Your task to perform on an android device: open app "PUBG MOBILE" (install if not already installed) Image 0: 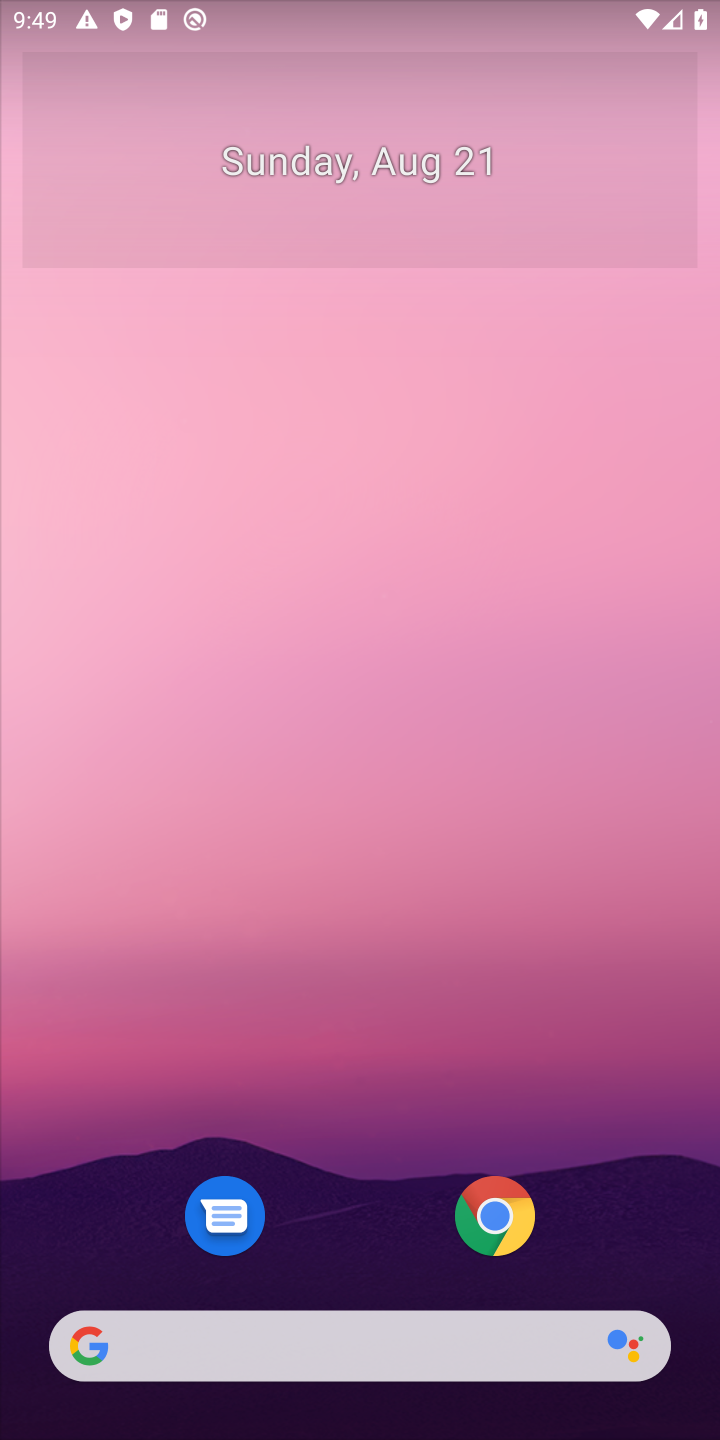
Step 0: drag from (125, 988) to (195, 181)
Your task to perform on an android device: open app "PUBG MOBILE" (install if not already installed) Image 1: 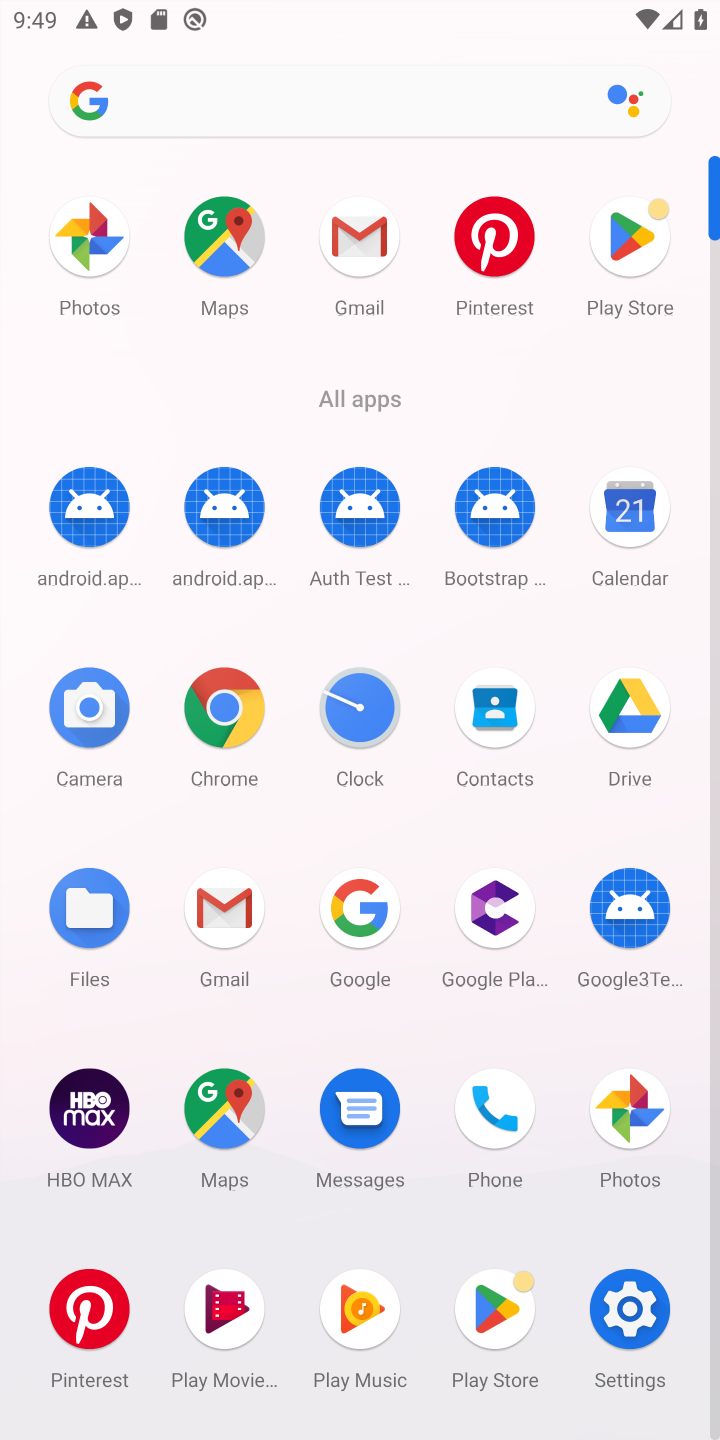
Step 1: click (625, 265)
Your task to perform on an android device: open app "PUBG MOBILE" (install if not already installed) Image 2: 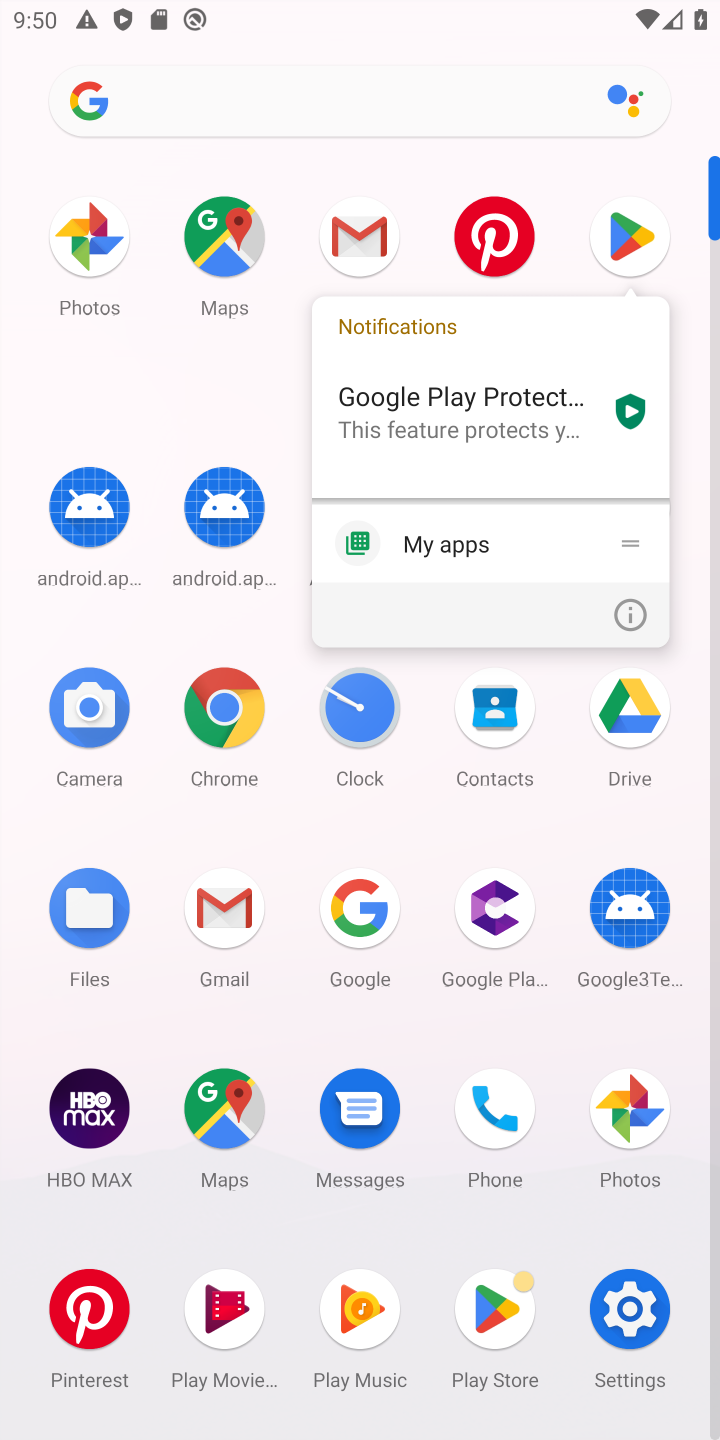
Step 2: click (605, 248)
Your task to perform on an android device: open app "PUBG MOBILE" (install if not already installed) Image 3: 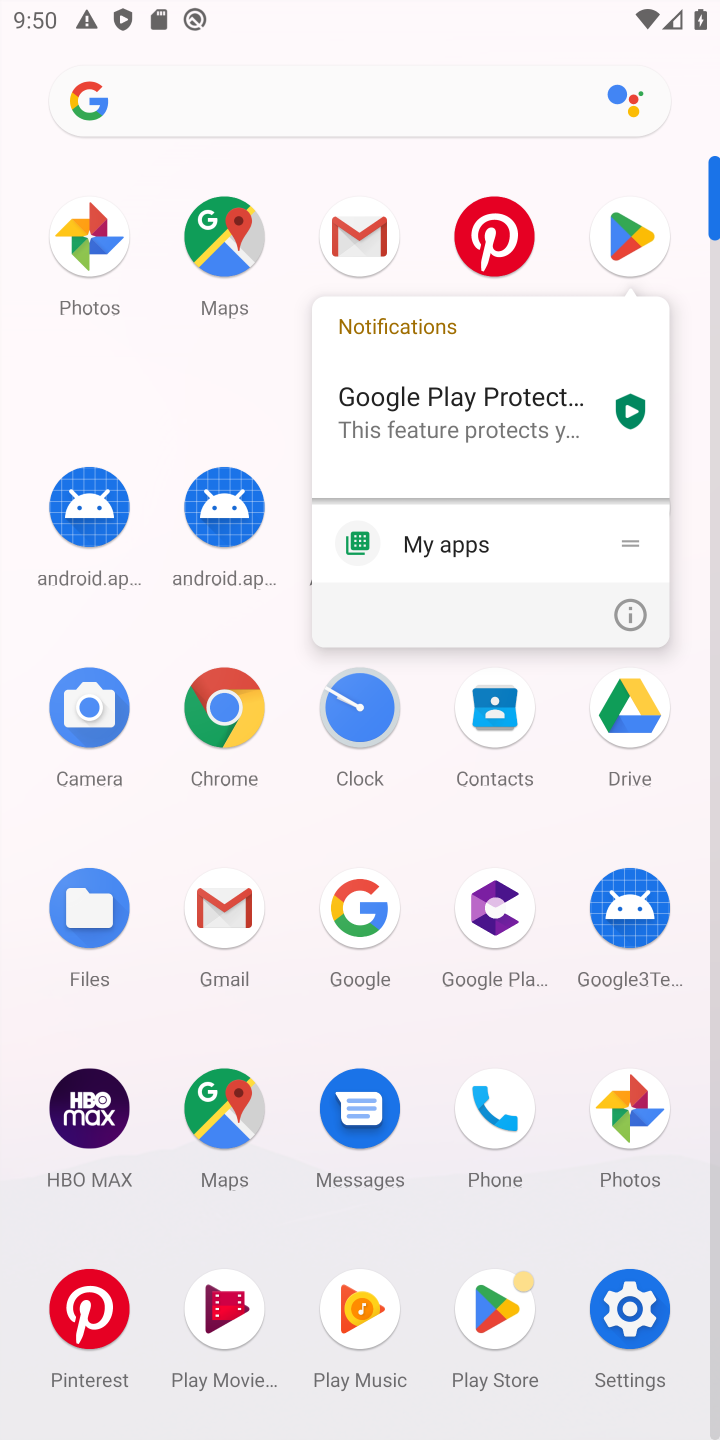
Step 3: click (648, 226)
Your task to perform on an android device: open app "PUBG MOBILE" (install if not already installed) Image 4: 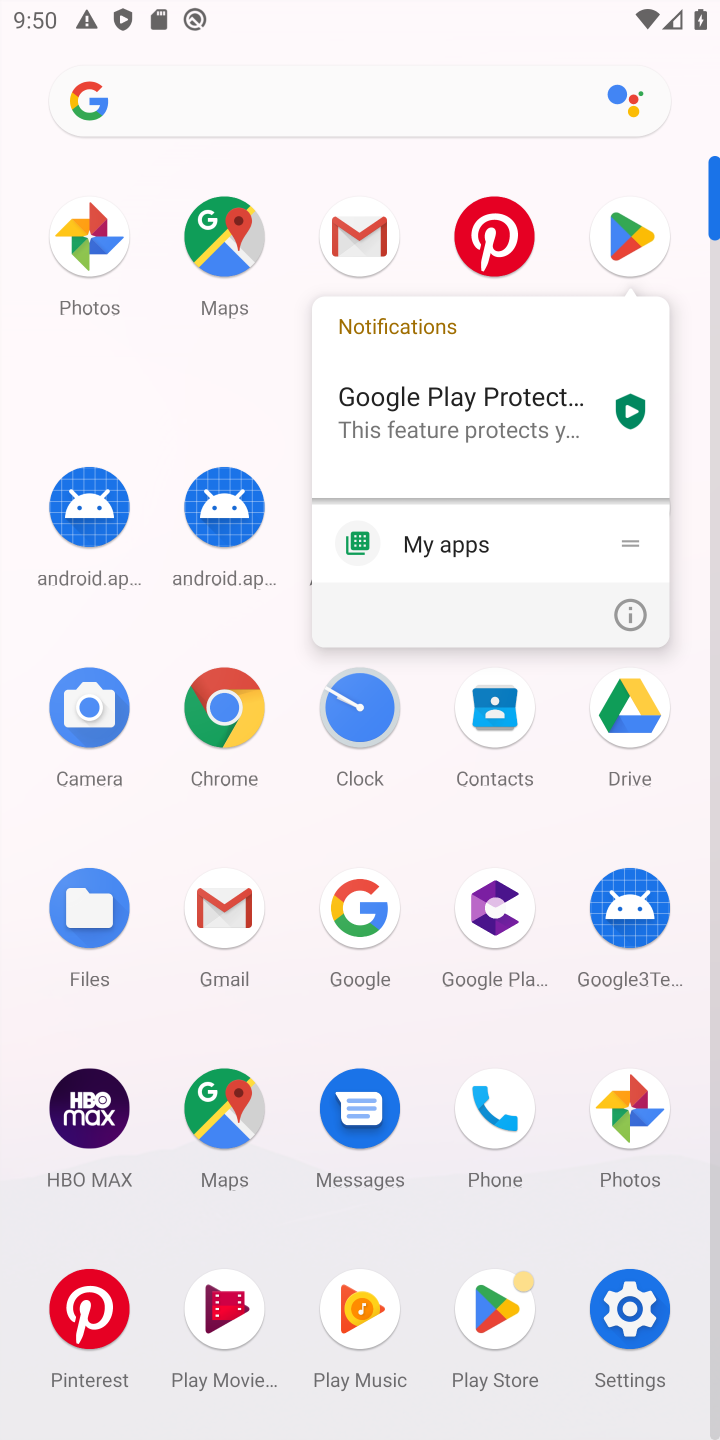
Step 4: click (642, 240)
Your task to perform on an android device: open app "PUBG MOBILE" (install if not already installed) Image 5: 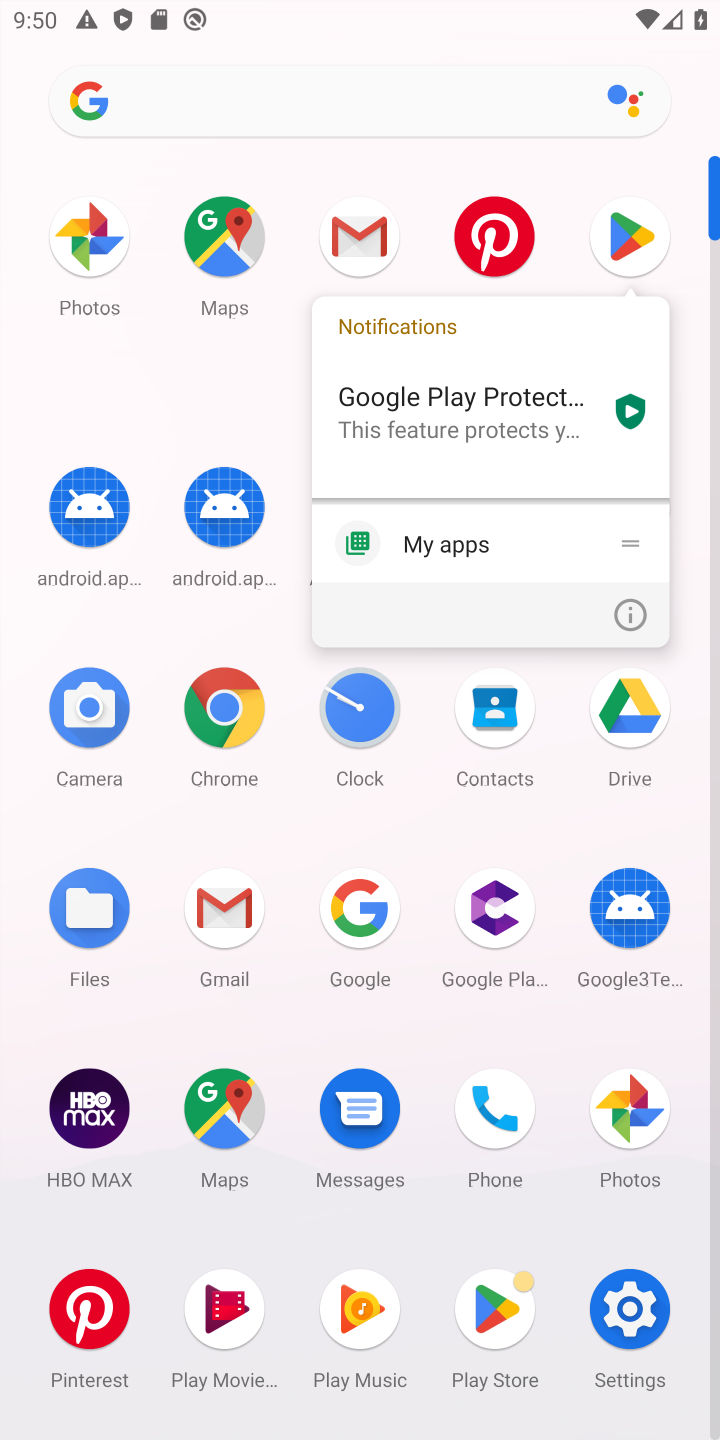
Step 5: click (636, 240)
Your task to perform on an android device: open app "PUBG MOBILE" (install if not already installed) Image 6: 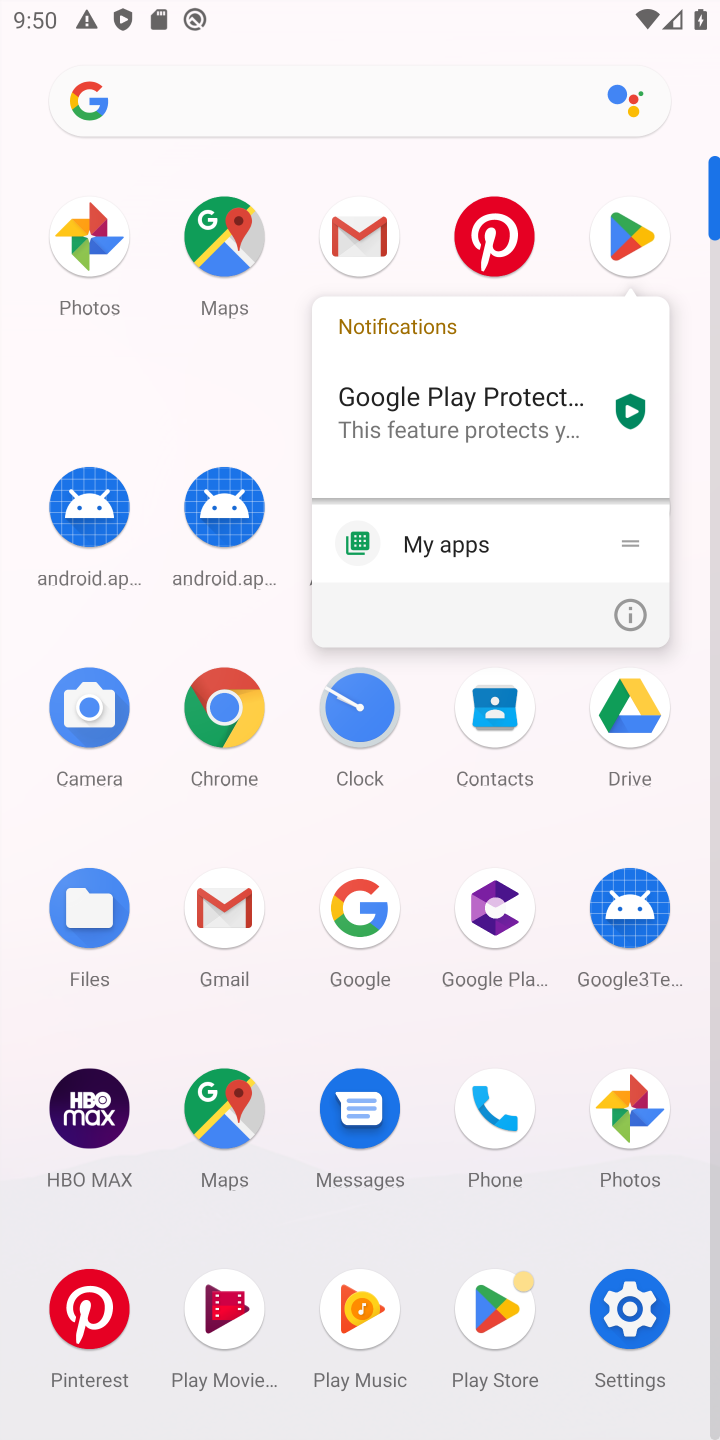
Step 6: click (636, 240)
Your task to perform on an android device: open app "PUBG MOBILE" (install if not already installed) Image 7: 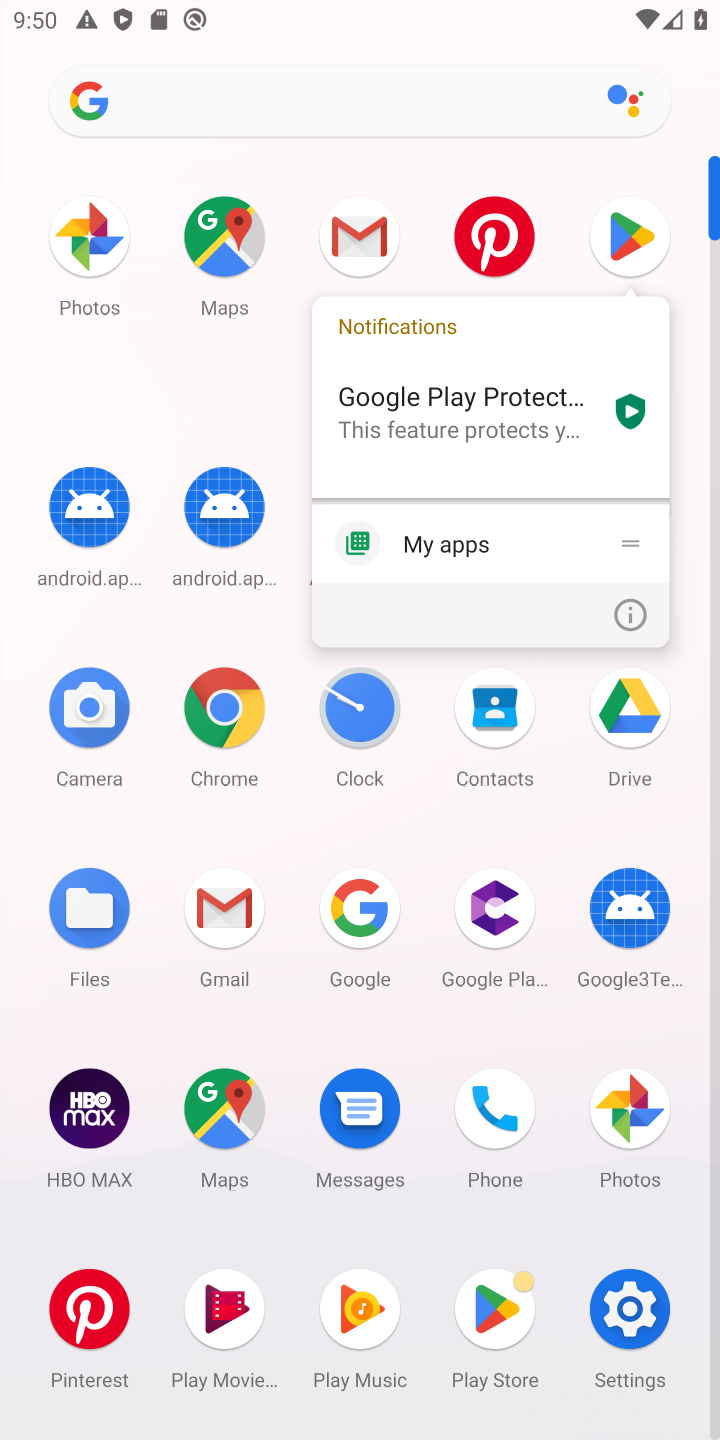
Step 7: click (636, 240)
Your task to perform on an android device: open app "PUBG MOBILE" (install if not already installed) Image 8: 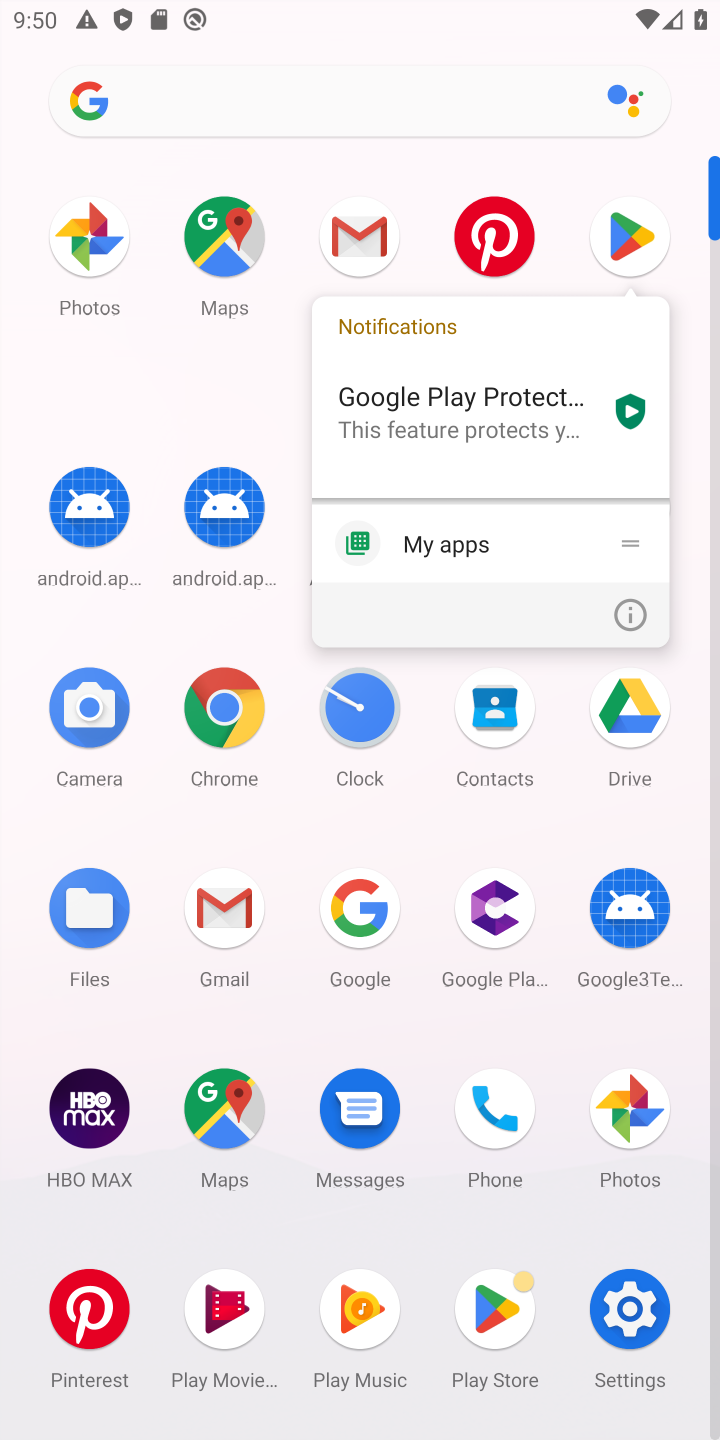
Step 8: click (636, 240)
Your task to perform on an android device: open app "PUBG MOBILE" (install if not already installed) Image 9: 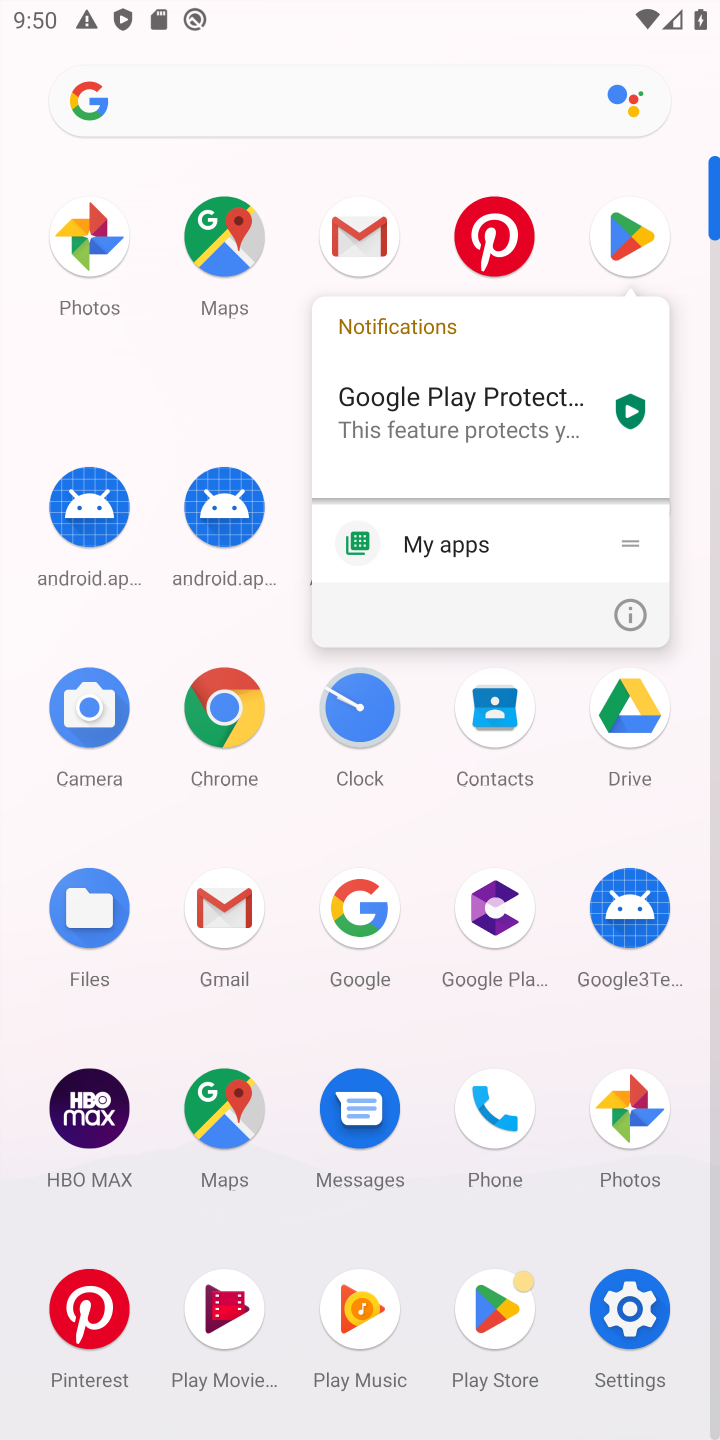
Step 9: click (624, 257)
Your task to perform on an android device: open app "PUBG MOBILE" (install if not already installed) Image 10: 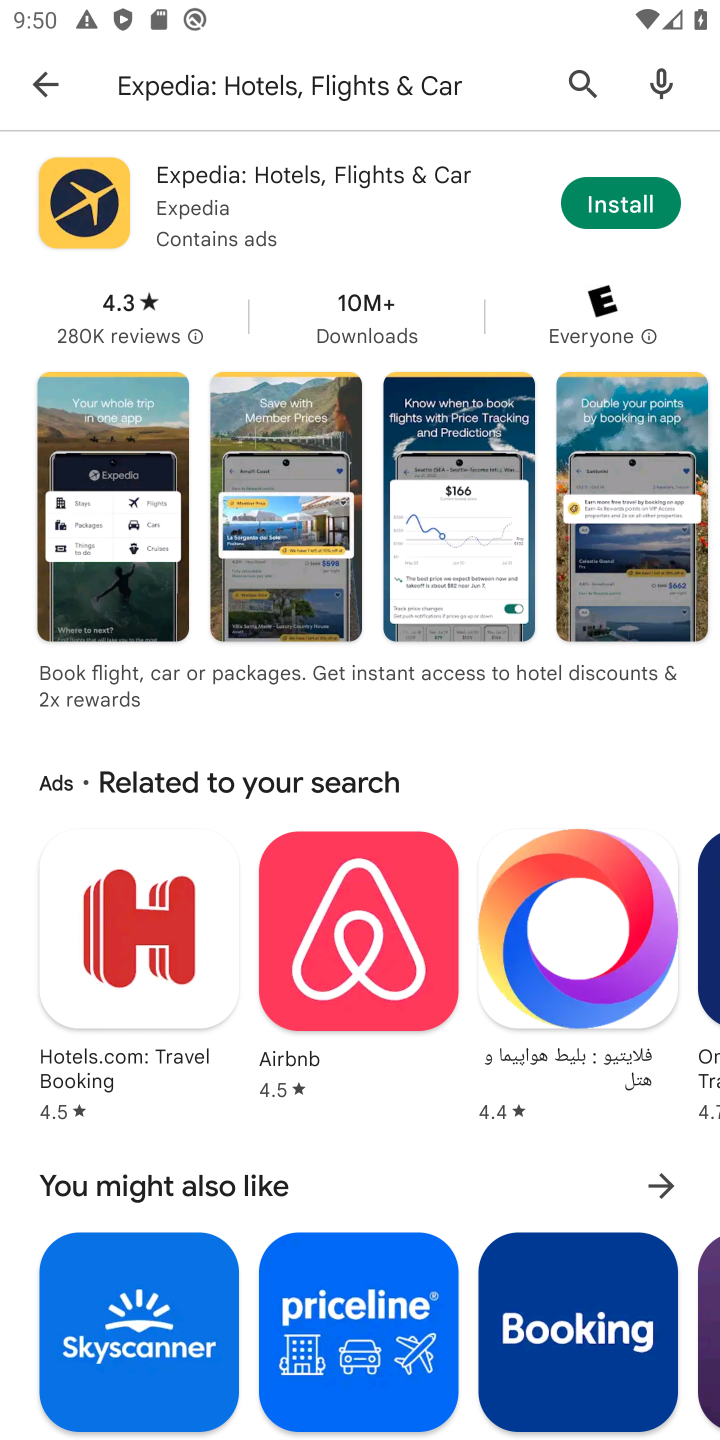
Step 10: click (597, 258)
Your task to perform on an android device: open app "PUBG MOBILE" (install if not already installed) Image 11: 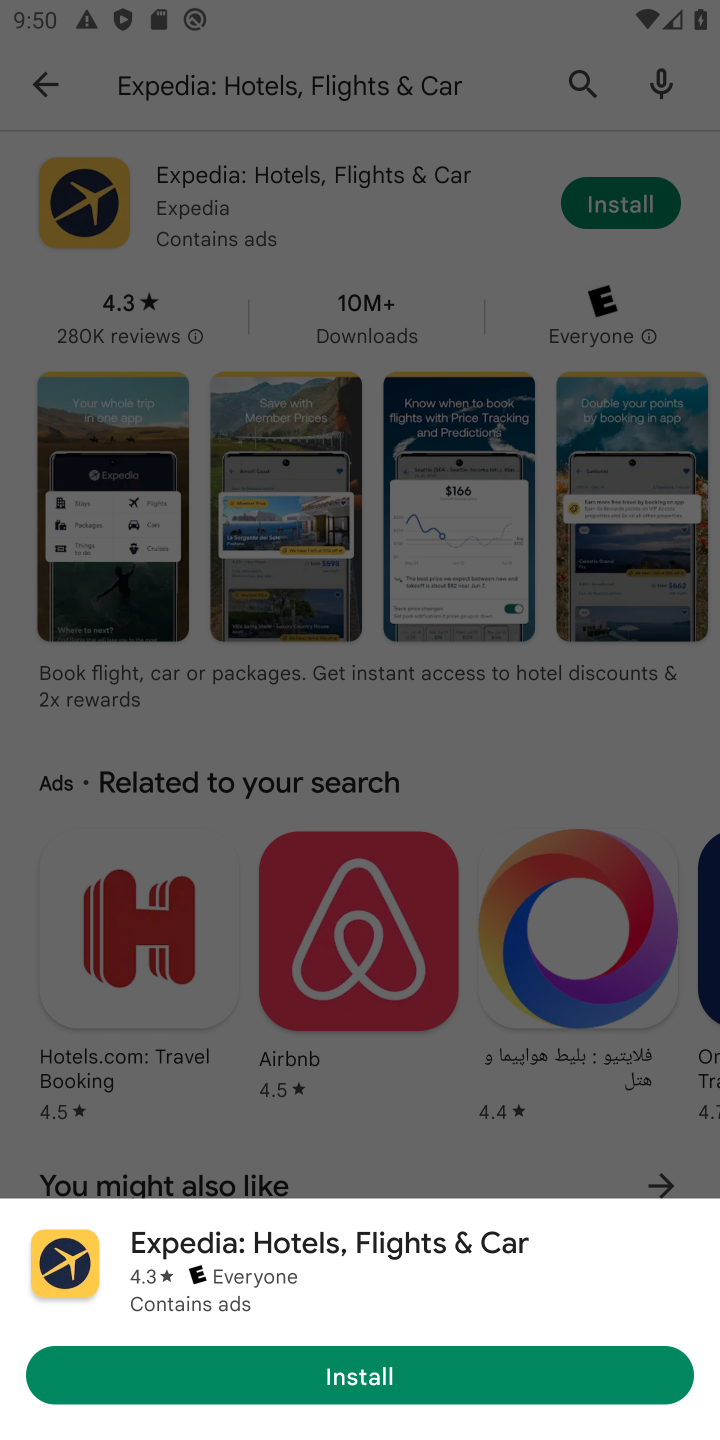
Step 11: press back button
Your task to perform on an android device: open app "PUBG MOBILE" (install if not already installed) Image 12: 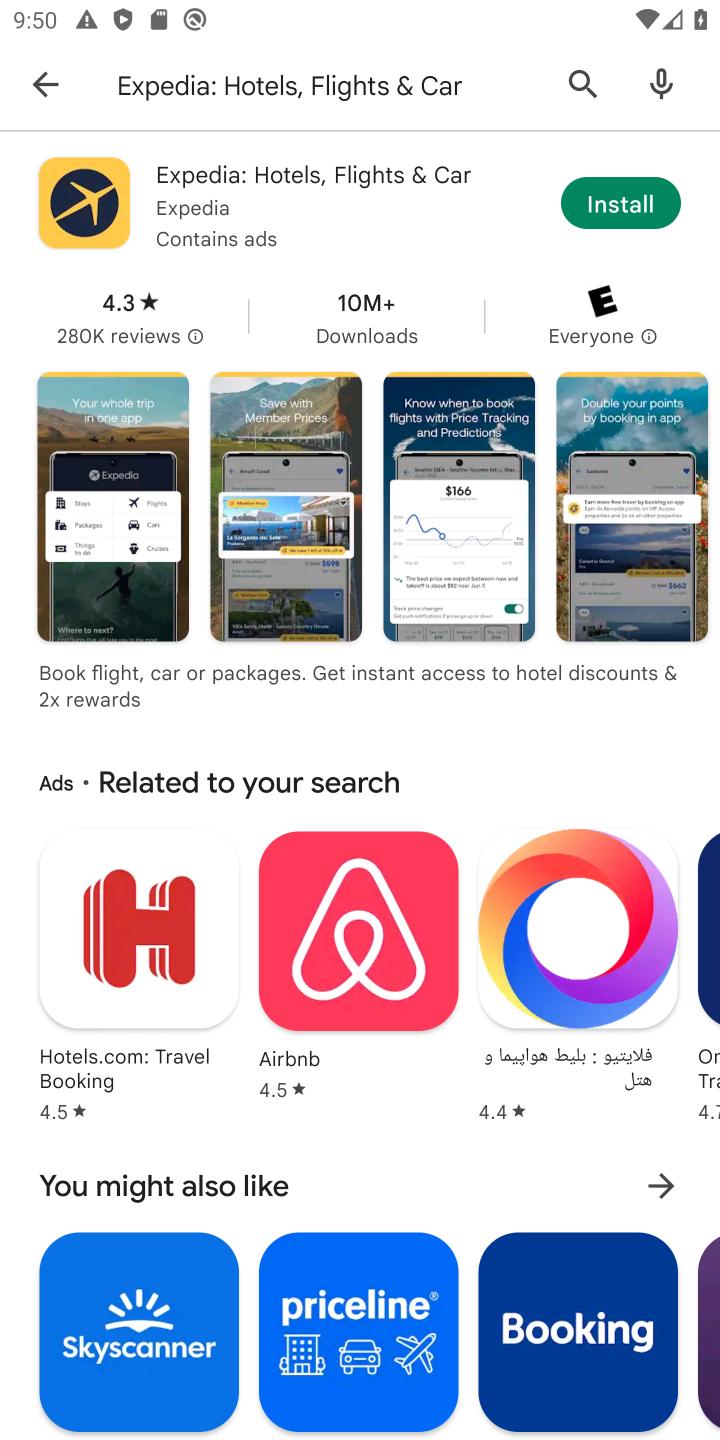
Step 12: press back button
Your task to perform on an android device: open app "PUBG MOBILE" (install if not already installed) Image 13: 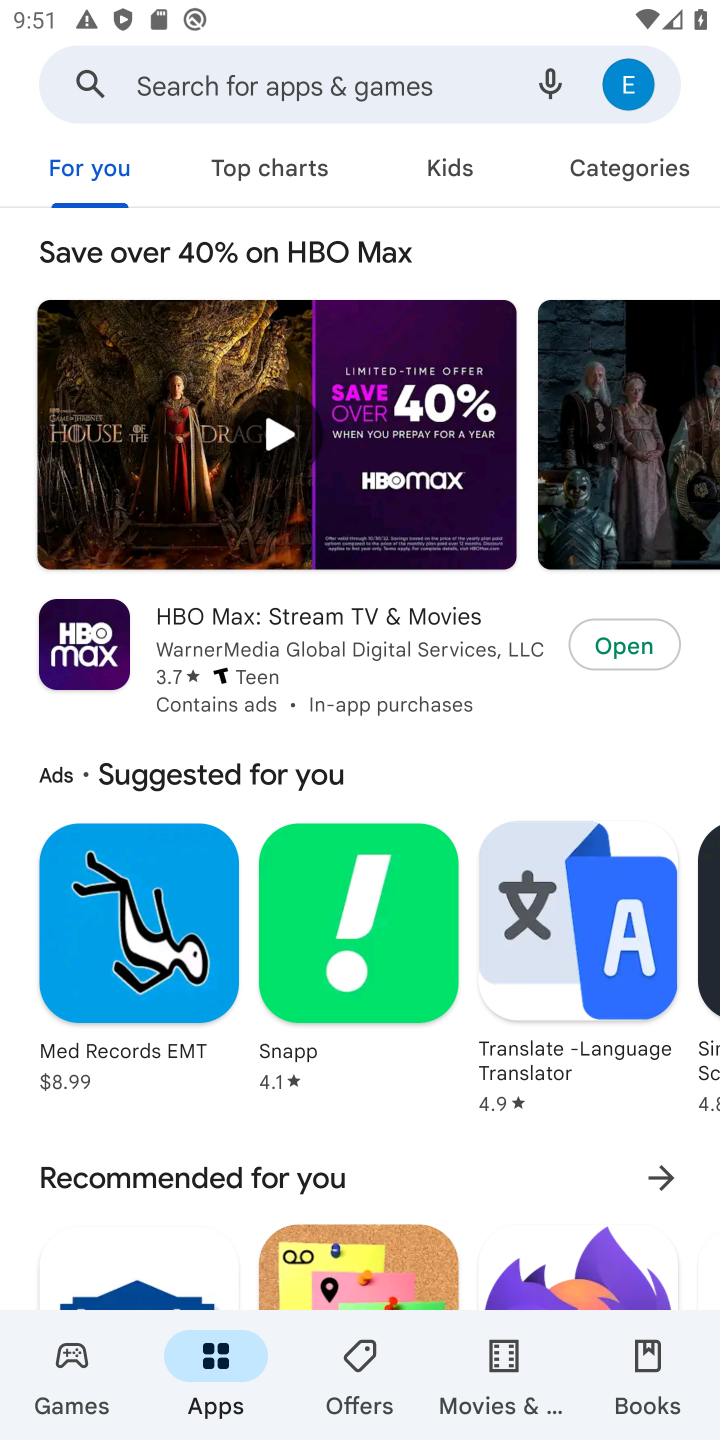
Step 13: click (288, 66)
Your task to perform on an android device: open app "PUBG MOBILE" (install if not already installed) Image 14: 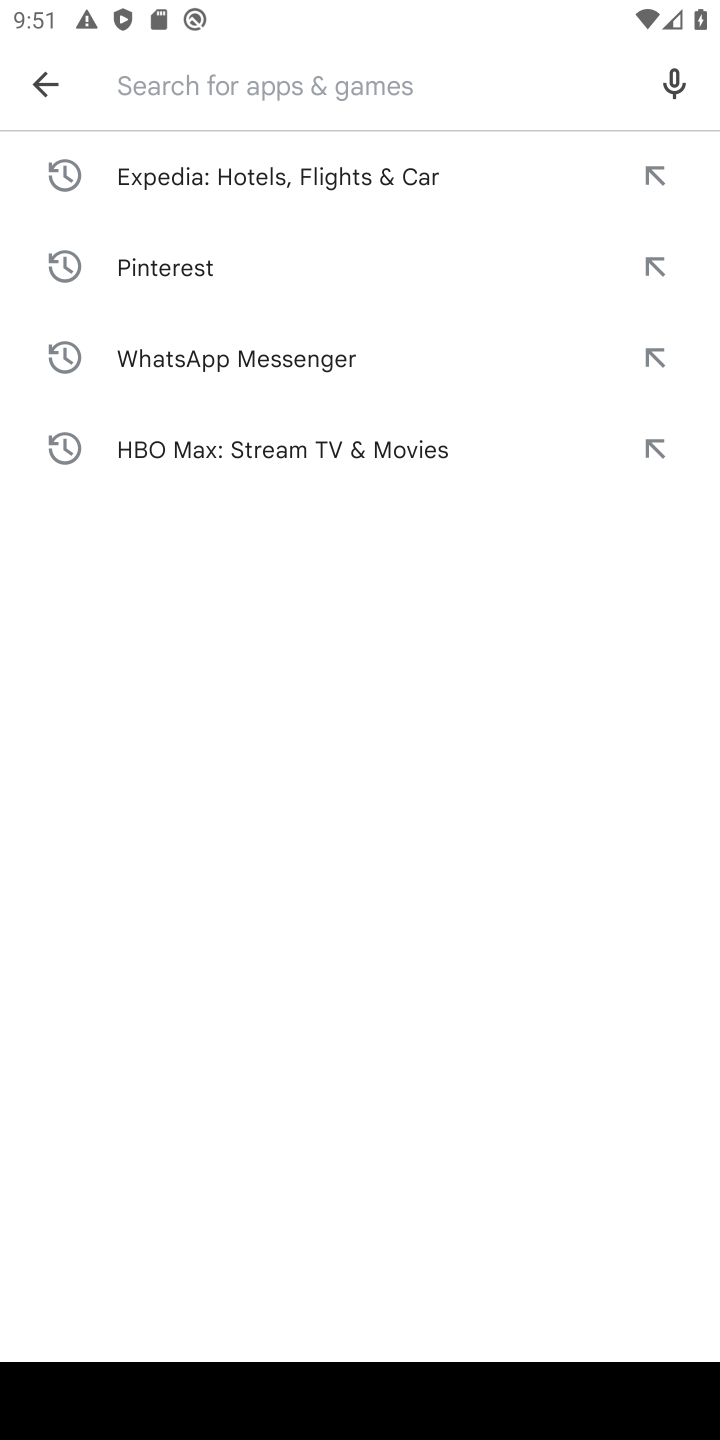
Step 14: type "PUBG MOBILE"
Your task to perform on an android device: open app "PUBG MOBILE" (install if not already installed) Image 15: 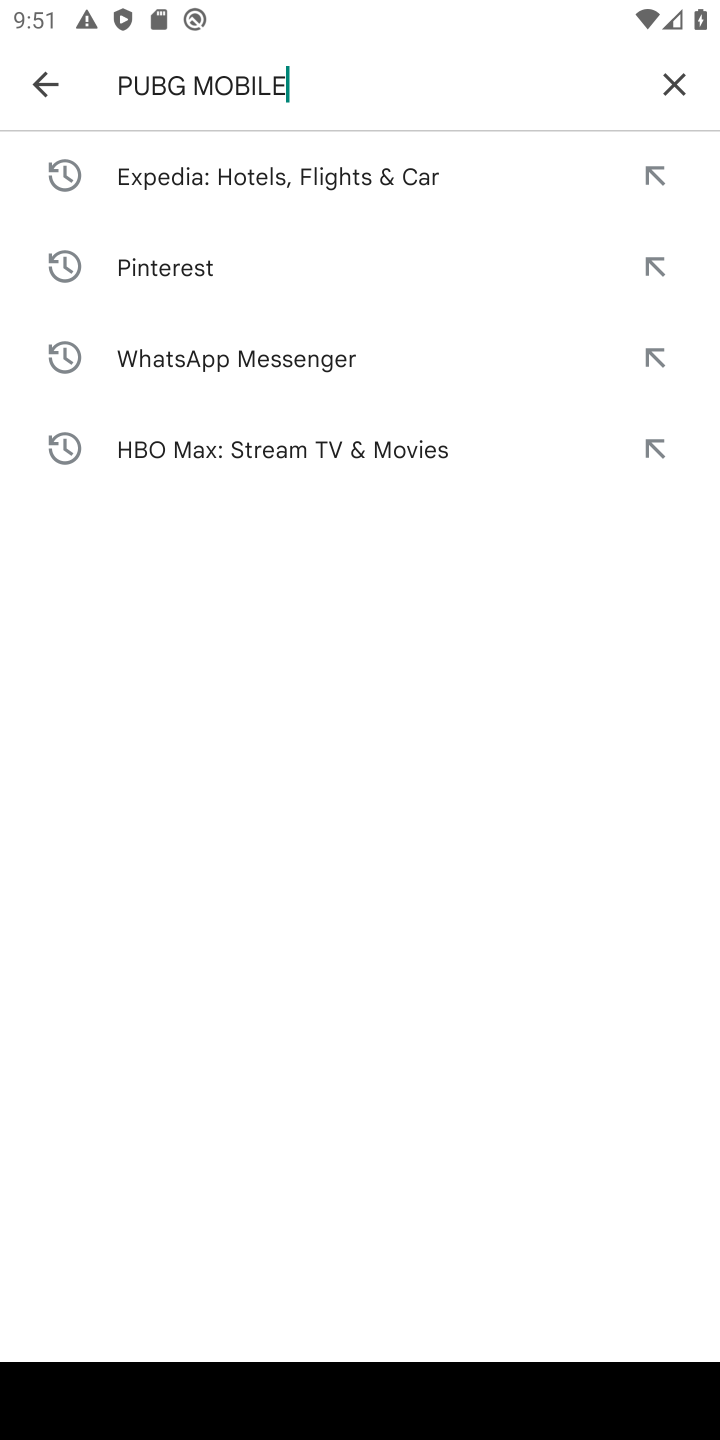
Step 15: press enter
Your task to perform on an android device: open app "PUBG MOBILE" (install if not already installed) Image 16: 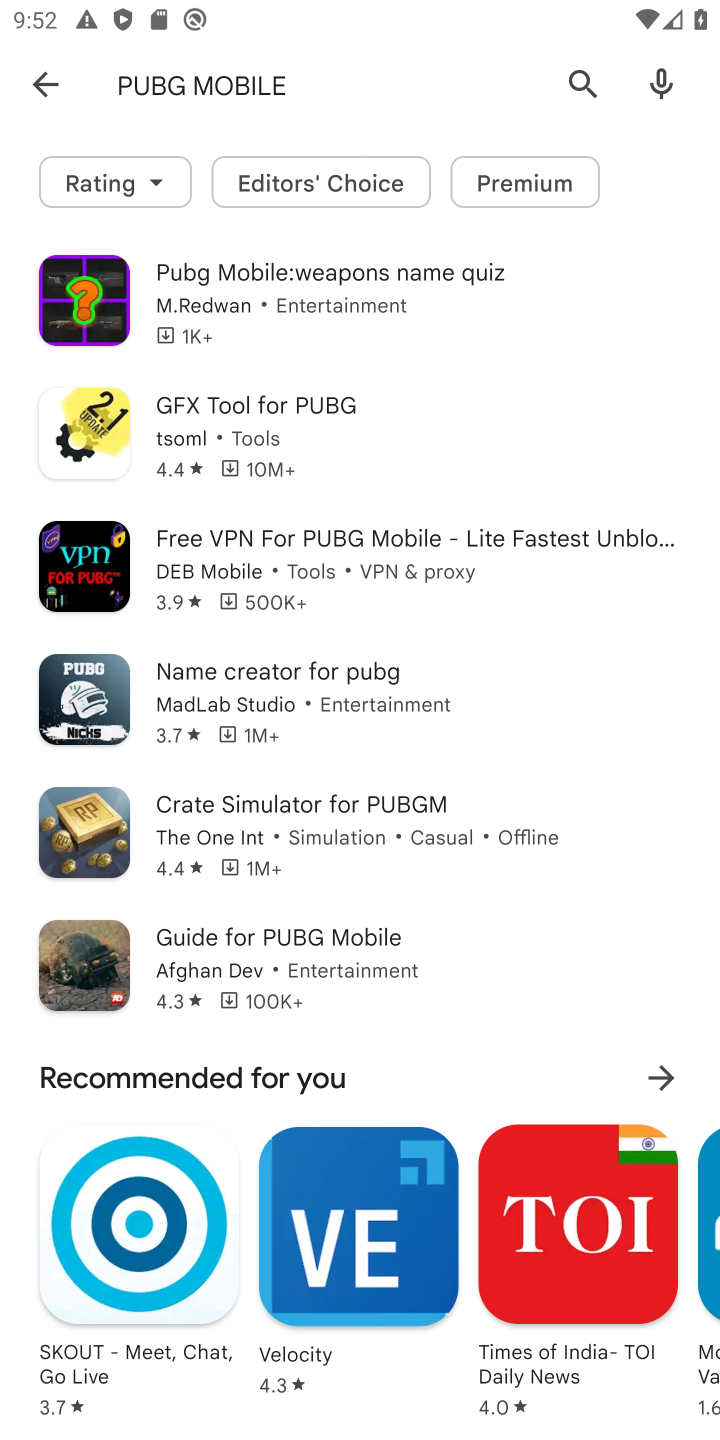
Step 16: task complete